Your task to perform on an android device: snooze an email in the gmail app Image 0: 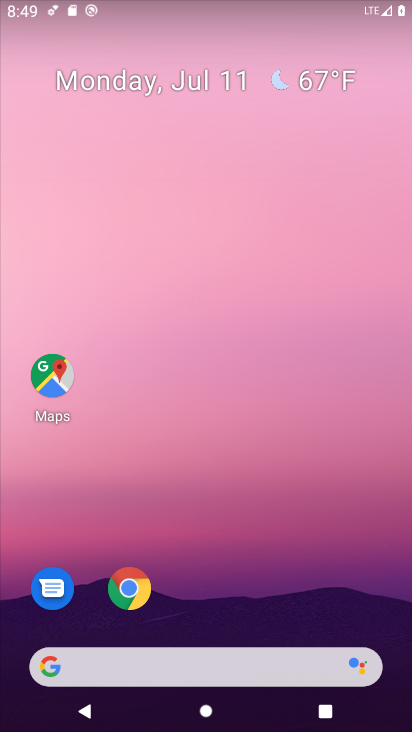
Step 0: drag from (314, 608) to (405, 313)
Your task to perform on an android device: snooze an email in the gmail app Image 1: 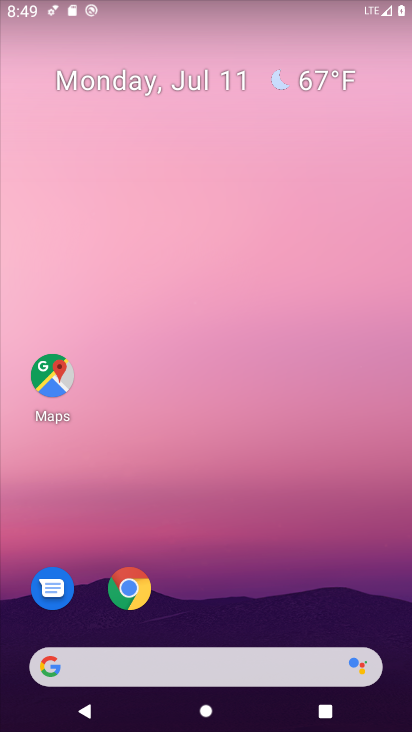
Step 1: drag from (238, 505) to (265, 98)
Your task to perform on an android device: snooze an email in the gmail app Image 2: 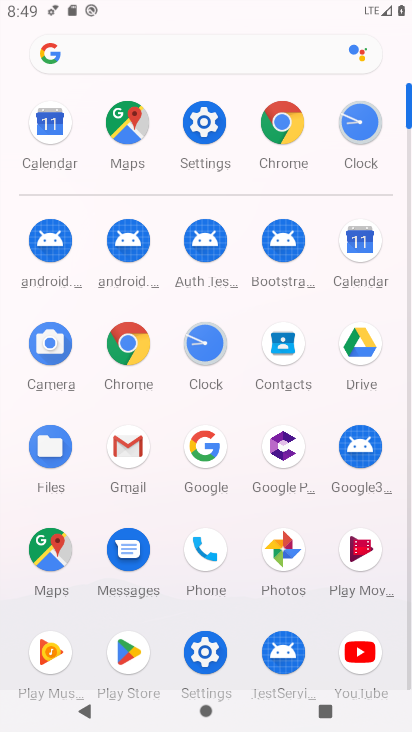
Step 2: click (132, 445)
Your task to perform on an android device: snooze an email in the gmail app Image 3: 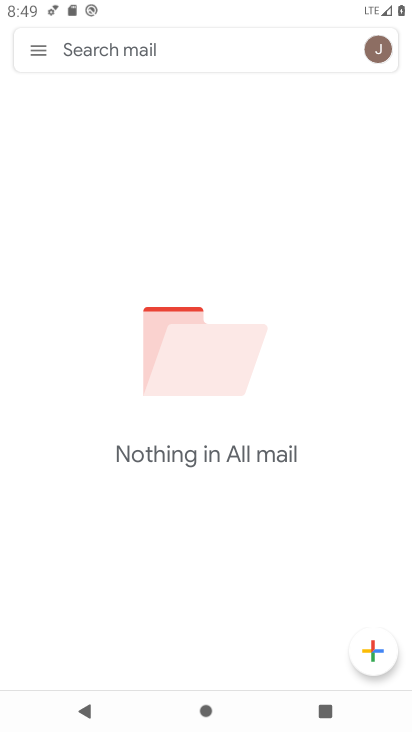
Step 3: task complete